Your task to perform on an android device: Open Google Chrome Image 0: 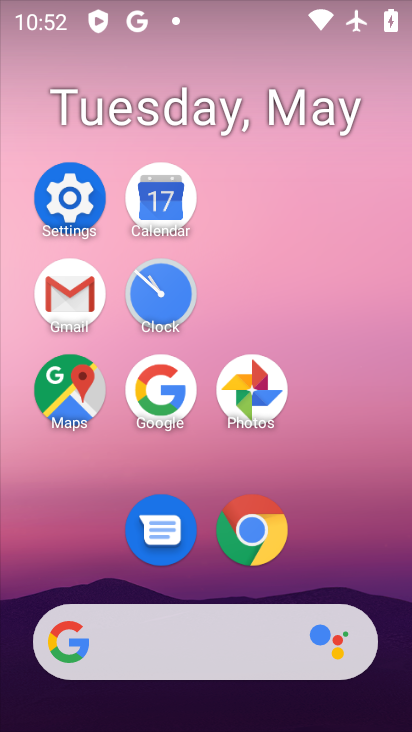
Step 0: click (251, 517)
Your task to perform on an android device: Open Google Chrome Image 1: 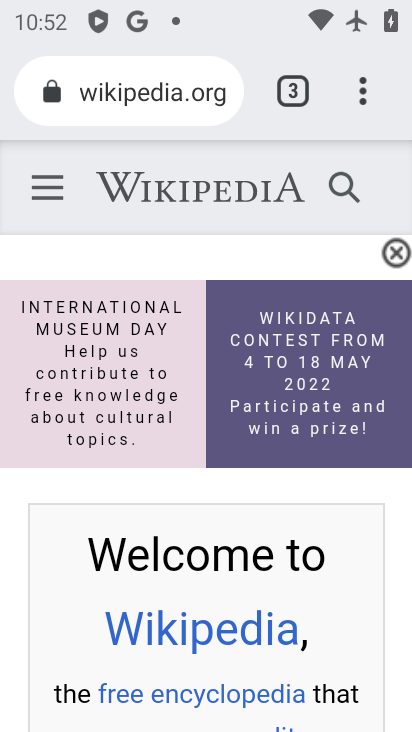
Step 1: task complete